Your task to perform on an android device: Open Youtube and go to "Your channel" Image 0: 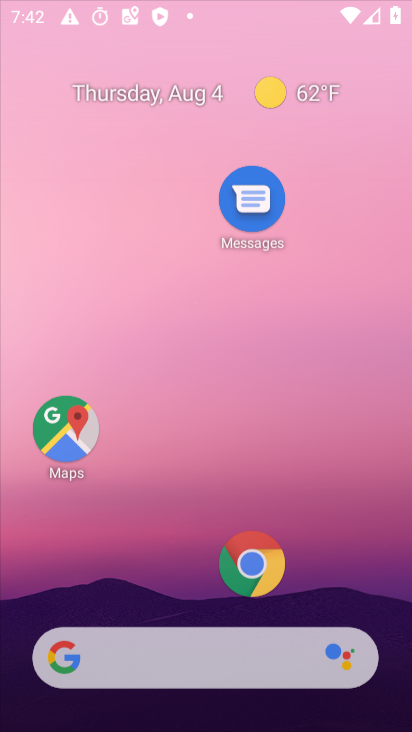
Step 0: press home button
Your task to perform on an android device: Open Youtube and go to "Your channel" Image 1: 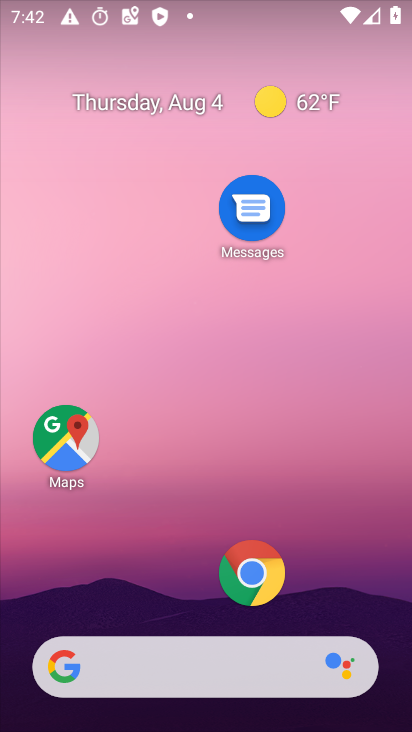
Step 1: drag from (183, 537) to (210, 64)
Your task to perform on an android device: Open Youtube and go to "Your channel" Image 2: 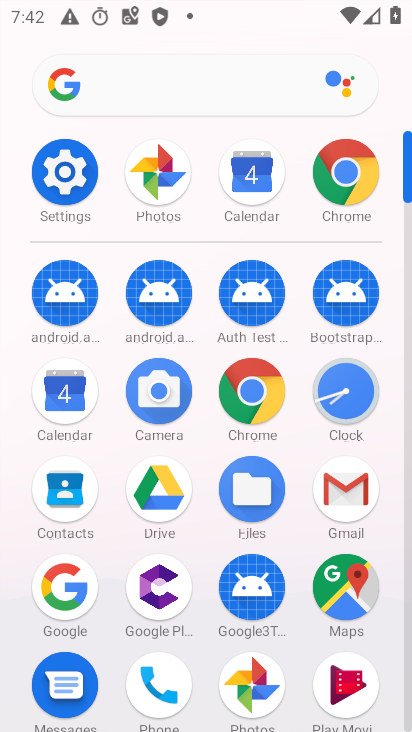
Step 2: drag from (309, 629) to (303, 150)
Your task to perform on an android device: Open Youtube and go to "Your channel" Image 3: 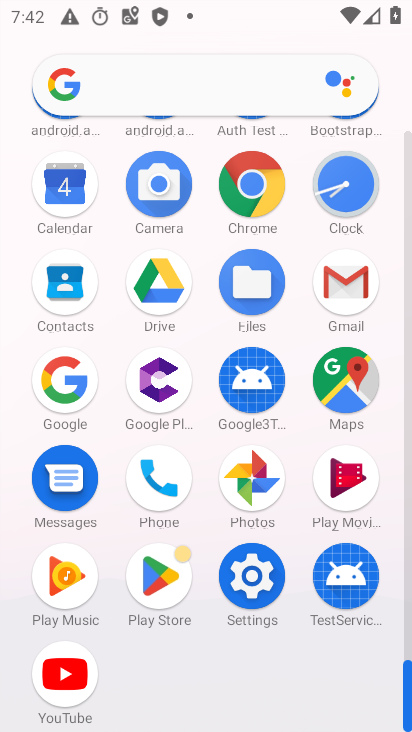
Step 3: click (48, 680)
Your task to perform on an android device: Open Youtube and go to "Your channel" Image 4: 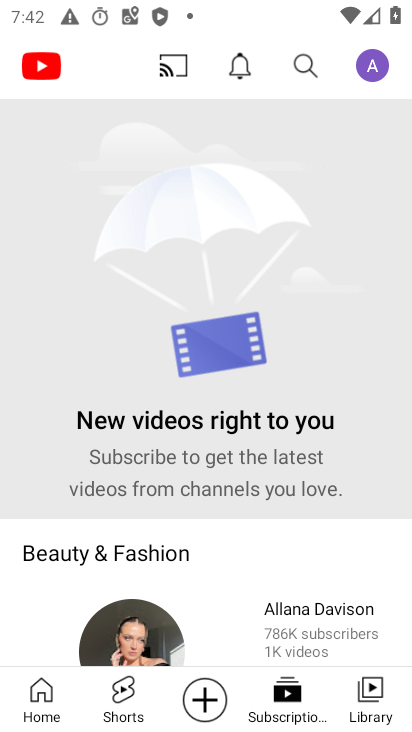
Step 4: click (385, 67)
Your task to perform on an android device: Open Youtube and go to "Your channel" Image 5: 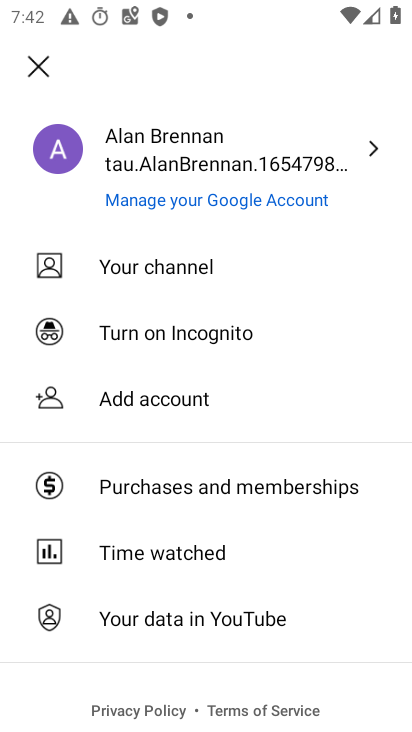
Step 5: click (144, 273)
Your task to perform on an android device: Open Youtube and go to "Your channel" Image 6: 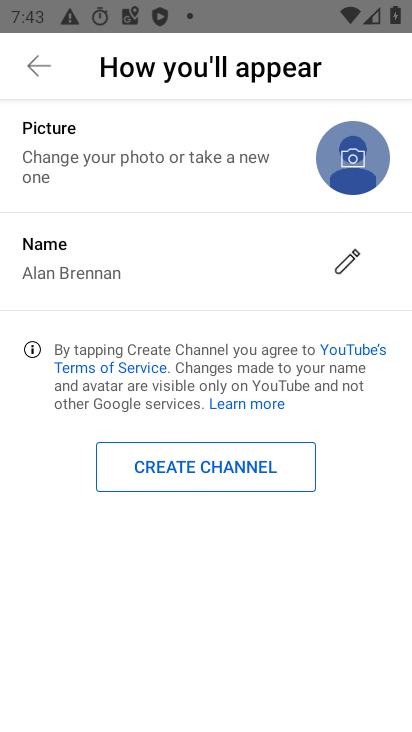
Step 6: task complete